Your task to perform on an android device: delete the emails in spam in the gmail app Image 0: 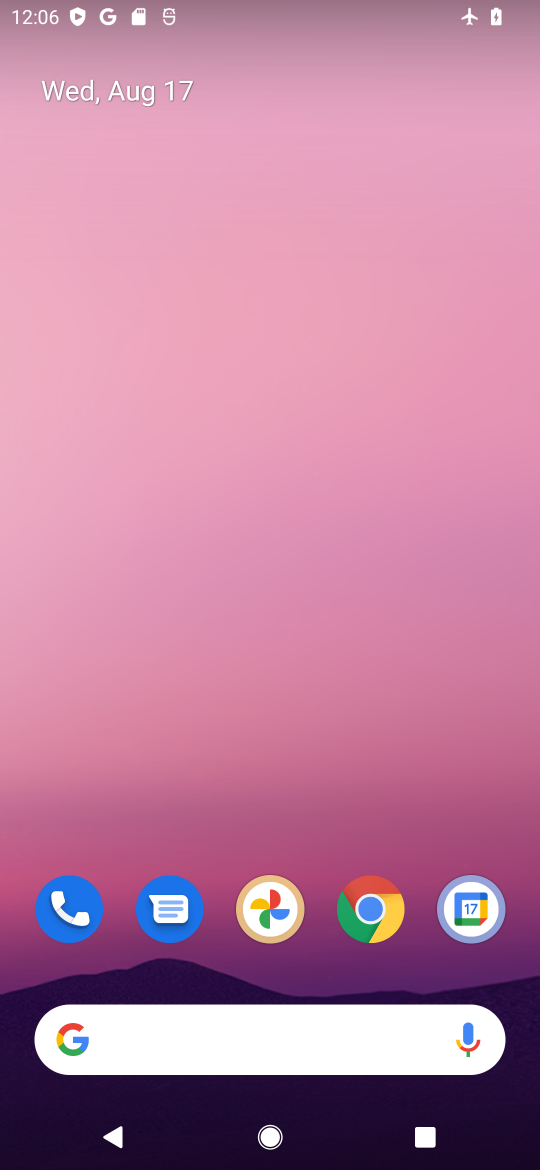
Step 0: drag from (308, 823) to (282, 0)
Your task to perform on an android device: delete the emails in spam in the gmail app Image 1: 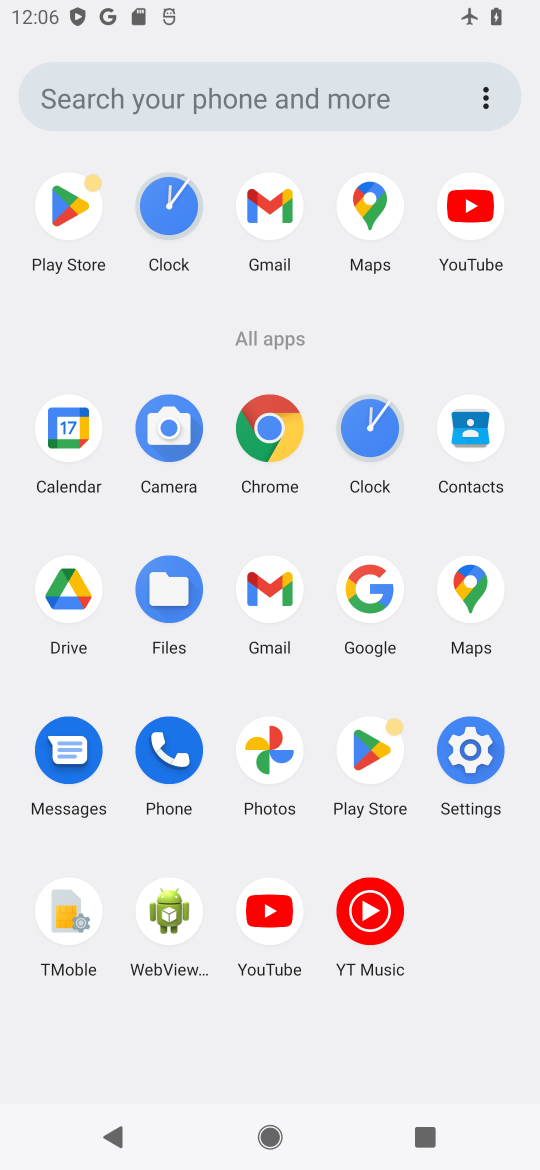
Step 1: click (267, 201)
Your task to perform on an android device: delete the emails in spam in the gmail app Image 2: 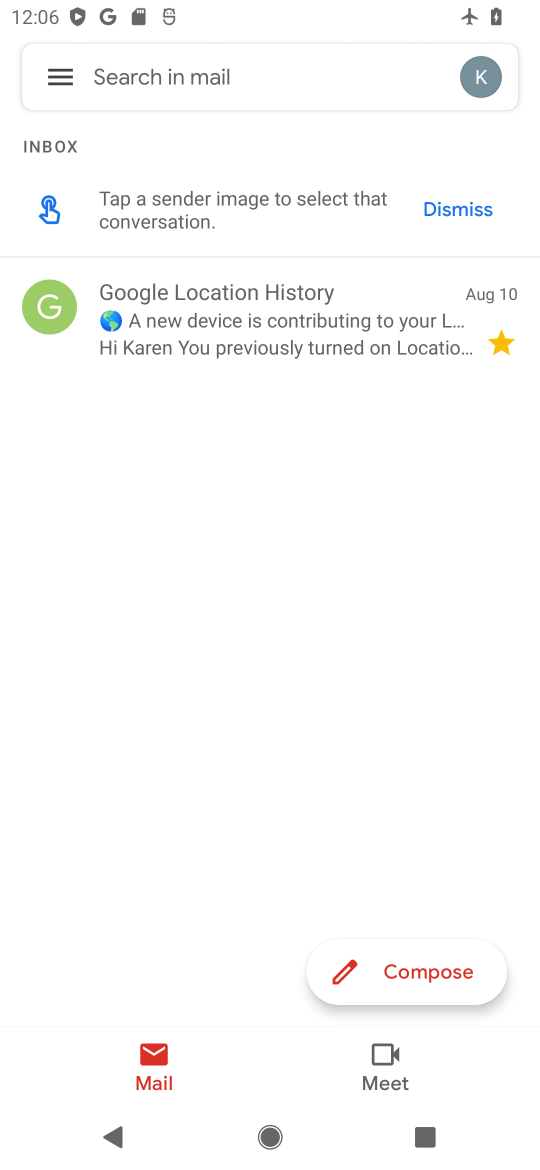
Step 2: click (55, 74)
Your task to perform on an android device: delete the emails in spam in the gmail app Image 3: 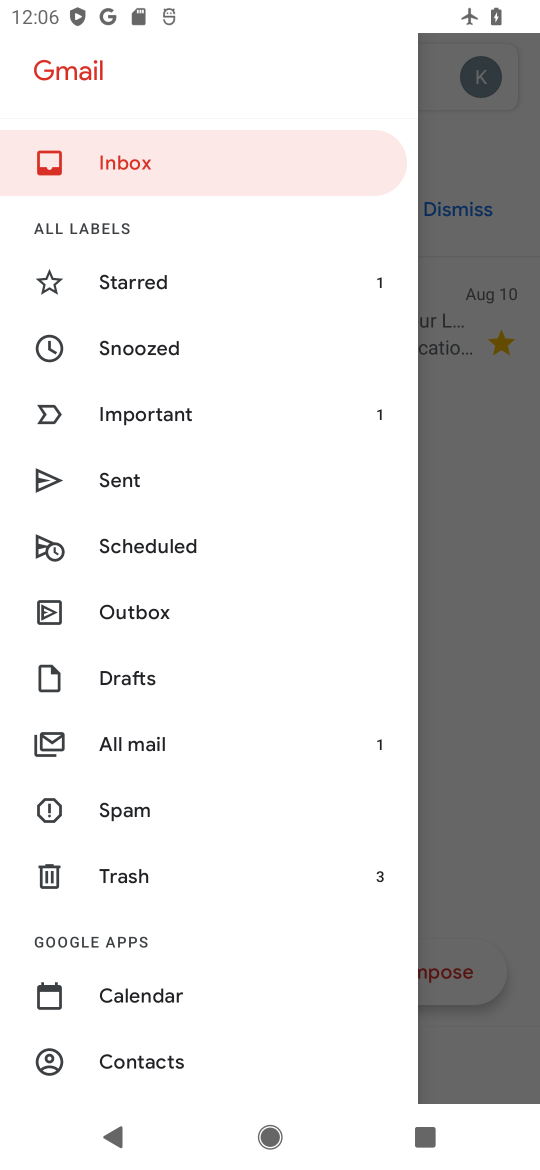
Step 3: click (132, 804)
Your task to perform on an android device: delete the emails in spam in the gmail app Image 4: 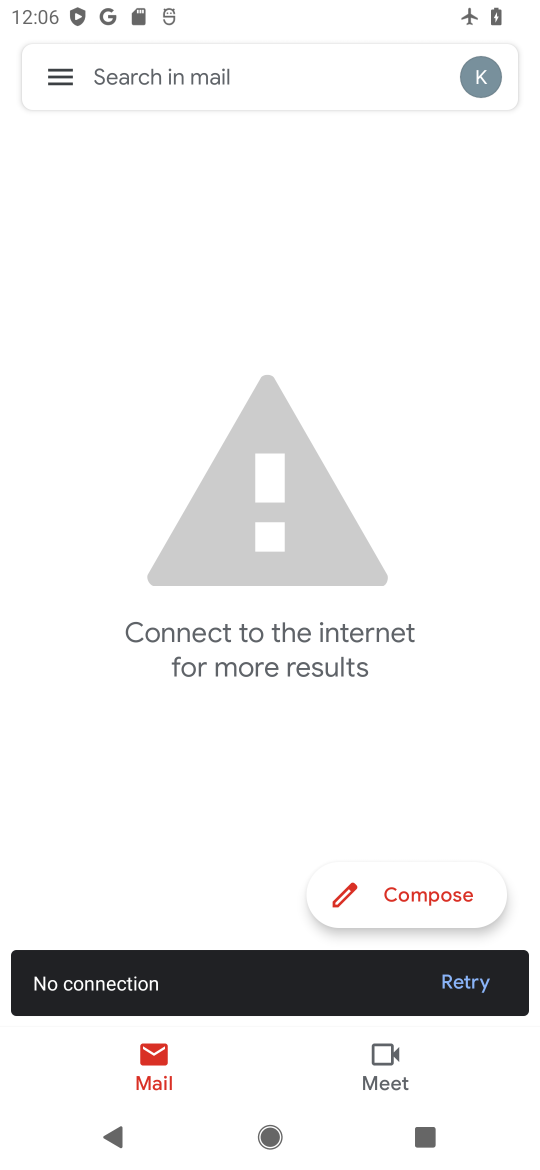
Step 4: task complete